Your task to perform on an android device: Search for logitech g910 on bestbuy.com, select the first entry, add it to the cart, then select checkout. Image 0: 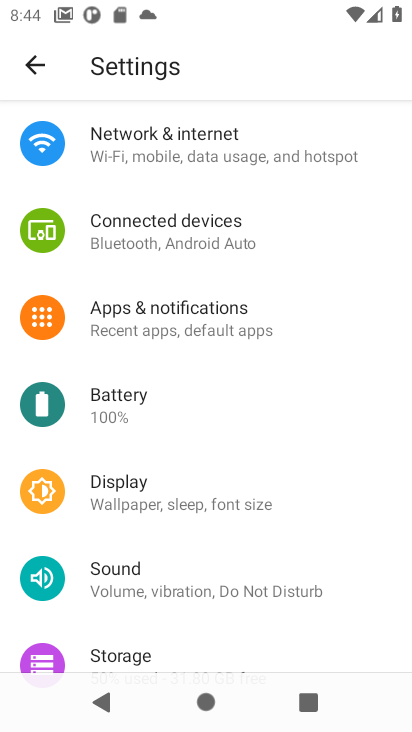
Step 0: press home button
Your task to perform on an android device: Search for logitech g910 on bestbuy.com, select the first entry, add it to the cart, then select checkout. Image 1: 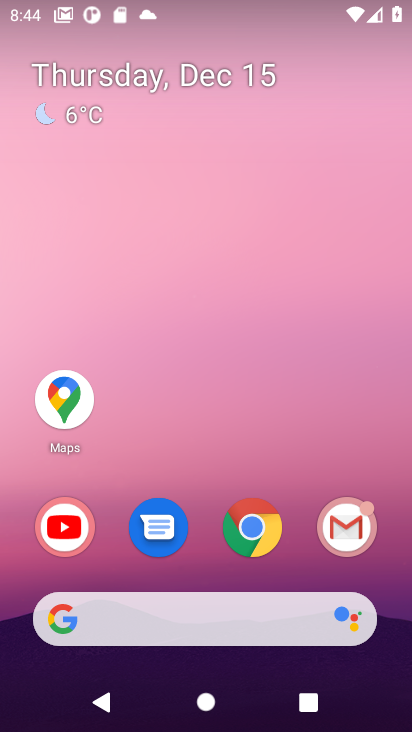
Step 1: click (264, 551)
Your task to perform on an android device: Search for logitech g910 on bestbuy.com, select the first entry, add it to the cart, then select checkout. Image 2: 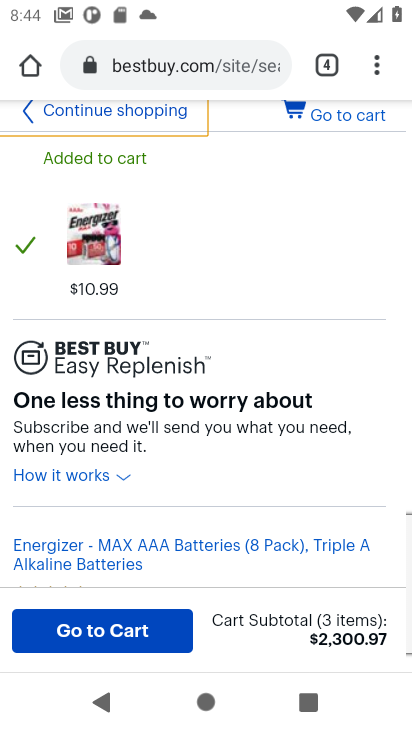
Step 2: drag from (259, 192) to (141, 691)
Your task to perform on an android device: Search for logitech g910 on bestbuy.com, select the first entry, add it to the cart, then select checkout. Image 3: 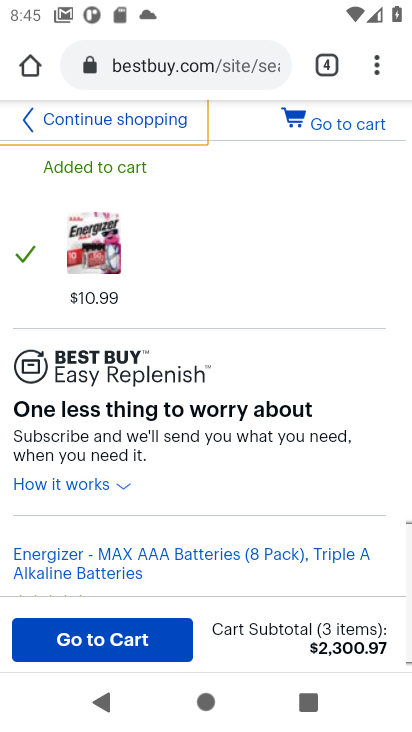
Step 3: drag from (218, 195) to (324, 719)
Your task to perform on an android device: Search for logitech g910 on bestbuy.com, select the first entry, add it to the cart, then select checkout. Image 4: 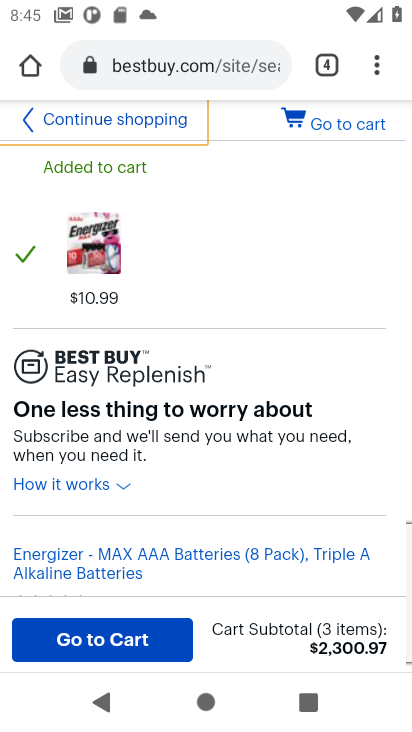
Step 4: drag from (258, 242) to (260, 710)
Your task to perform on an android device: Search for logitech g910 on bestbuy.com, select the first entry, add it to the cart, then select checkout. Image 5: 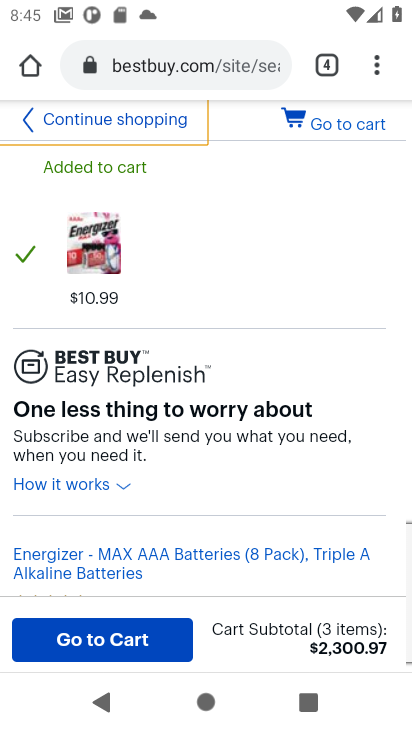
Step 5: drag from (285, 290) to (284, 703)
Your task to perform on an android device: Search for logitech g910 on bestbuy.com, select the first entry, add it to the cart, then select checkout. Image 6: 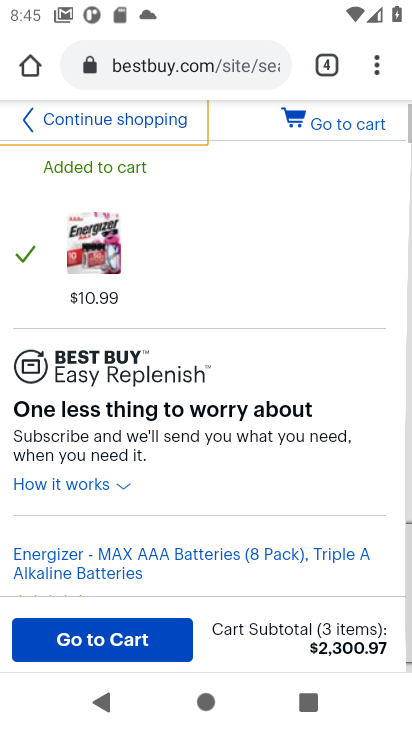
Step 6: drag from (228, 192) to (228, 236)
Your task to perform on an android device: Search for logitech g910 on bestbuy.com, select the first entry, add it to the cart, then select checkout. Image 7: 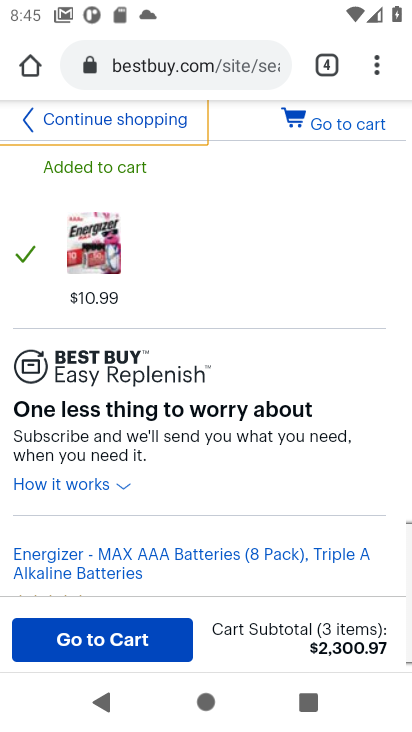
Step 7: click (140, 129)
Your task to perform on an android device: Search for logitech g910 on bestbuy.com, select the first entry, add it to the cart, then select checkout. Image 8: 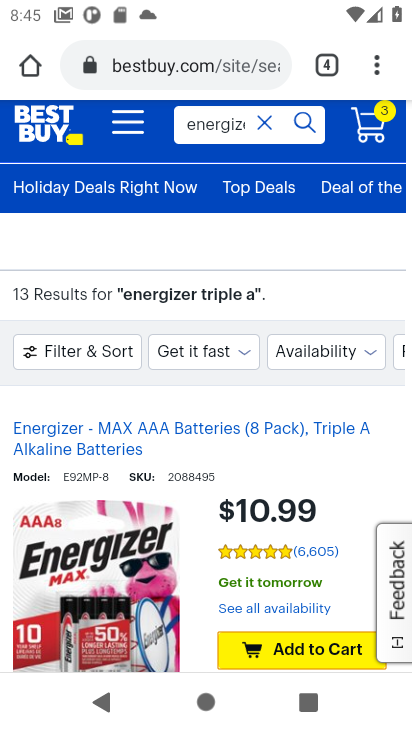
Step 8: click (280, 119)
Your task to perform on an android device: Search for logitech g910 on bestbuy.com, select the first entry, add it to the cart, then select checkout. Image 9: 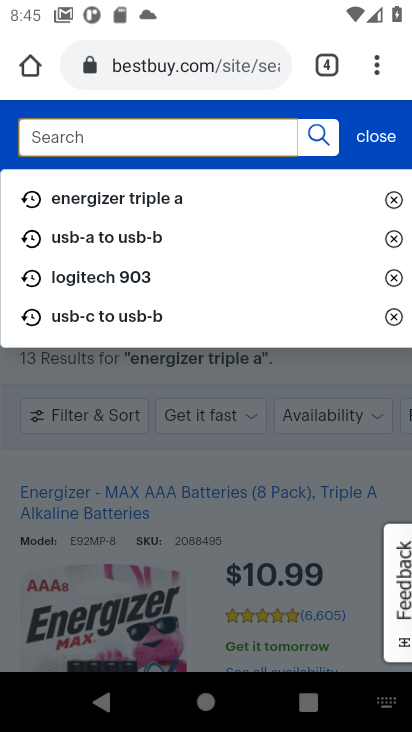
Step 9: type "logitech g910"
Your task to perform on an android device: Search for logitech g910 on bestbuy.com, select the first entry, add it to the cart, then select checkout. Image 10: 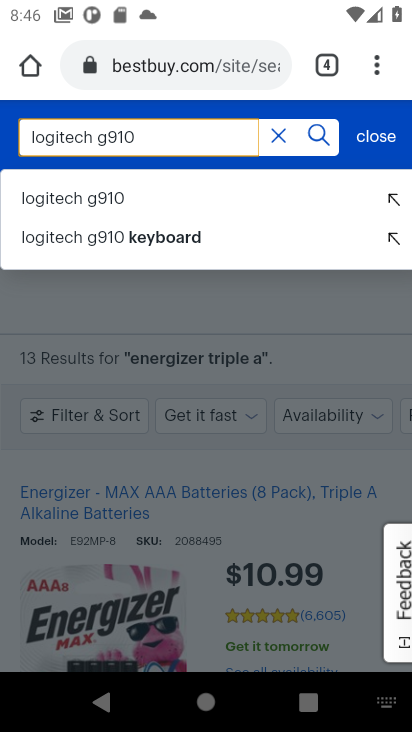
Step 10: click (207, 201)
Your task to perform on an android device: Search for logitech g910 on bestbuy.com, select the first entry, add it to the cart, then select checkout. Image 11: 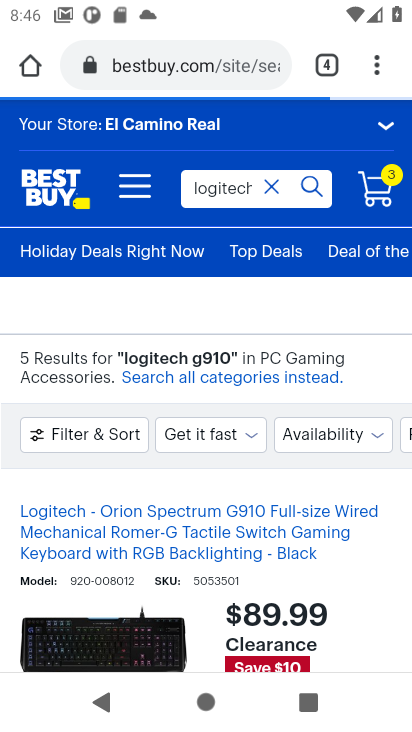
Step 11: task complete